Your task to perform on an android device: Show me the alarms in the clock app Image 0: 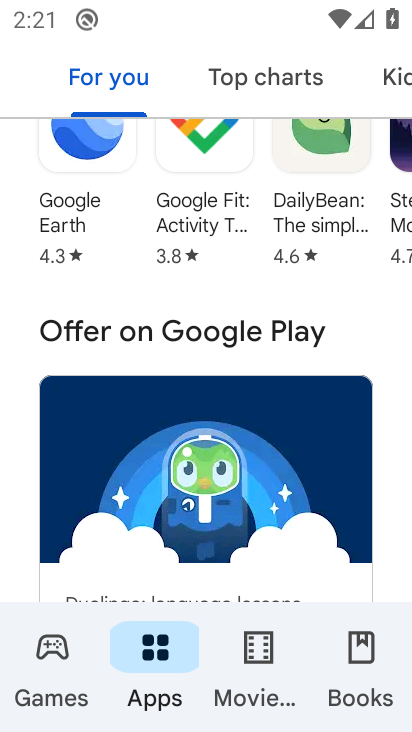
Step 0: press home button
Your task to perform on an android device: Show me the alarms in the clock app Image 1: 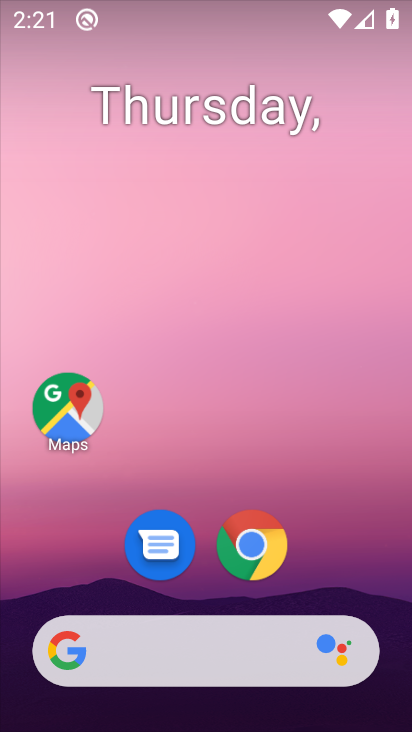
Step 1: drag from (186, 623) to (331, 51)
Your task to perform on an android device: Show me the alarms in the clock app Image 2: 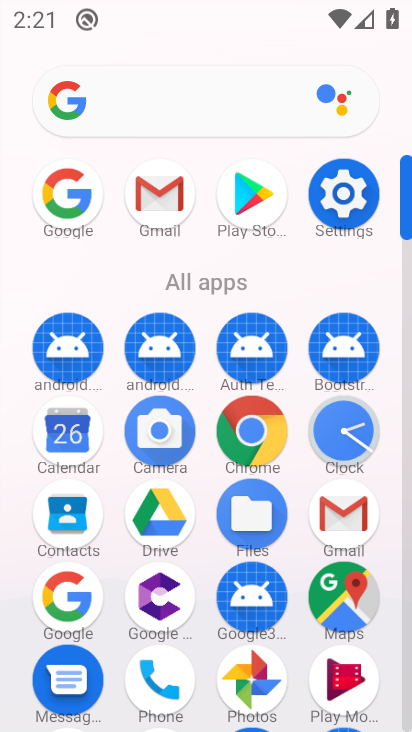
Step 2: click (345, 436)
Your task to perform on an android device: Show me the alarms in the clock app Image 3: 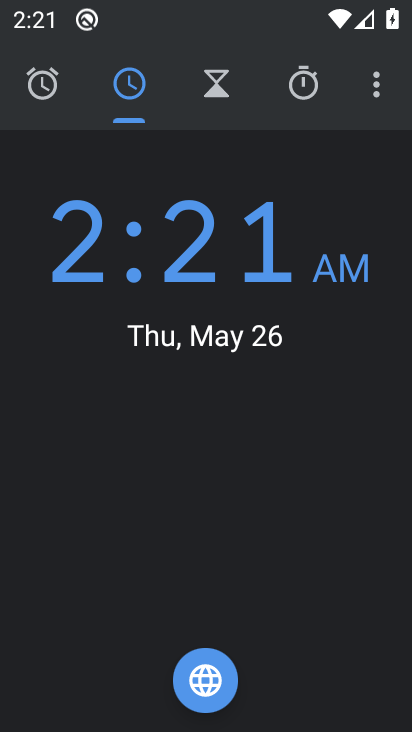
Step 3: click (46, 91)
Your task to perform on an android device: Show me the alarms in the clock app Image 4: 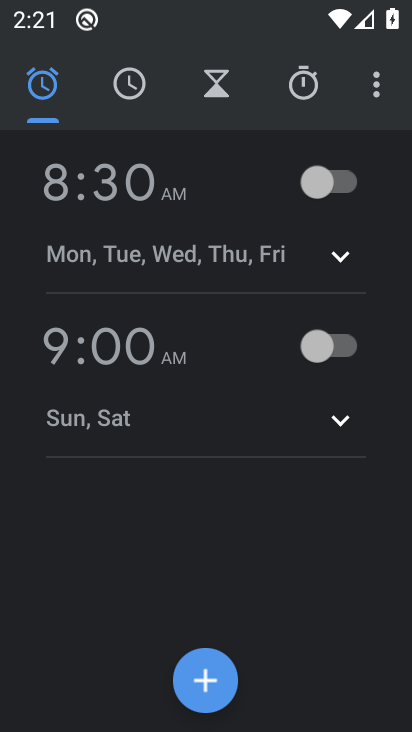
Step 4: task complete